Your task to perform on an android device: Open the web browser Image 0: 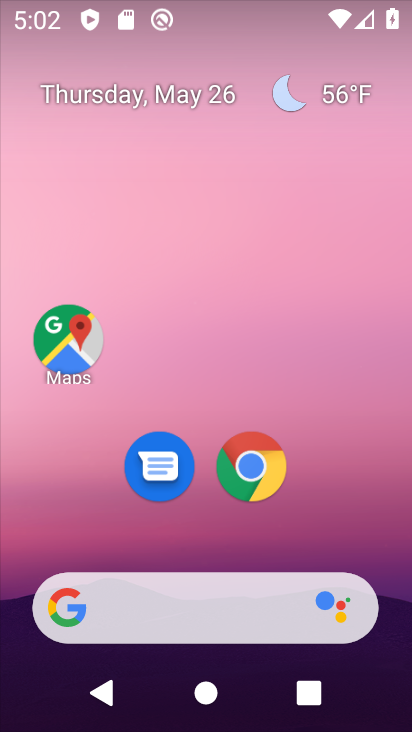
Step 0: click (244, 461)
Your task to perform on an android device: Open the web browser Image 1: 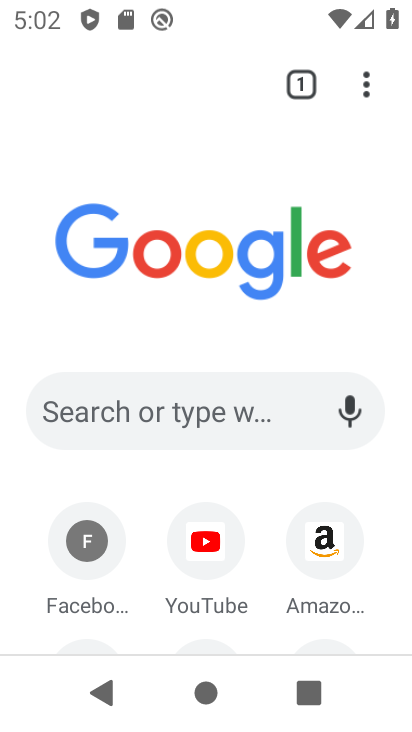
Step 1: click (188, 428)
Your task to perform on an android device: Open the web browser Image 2: 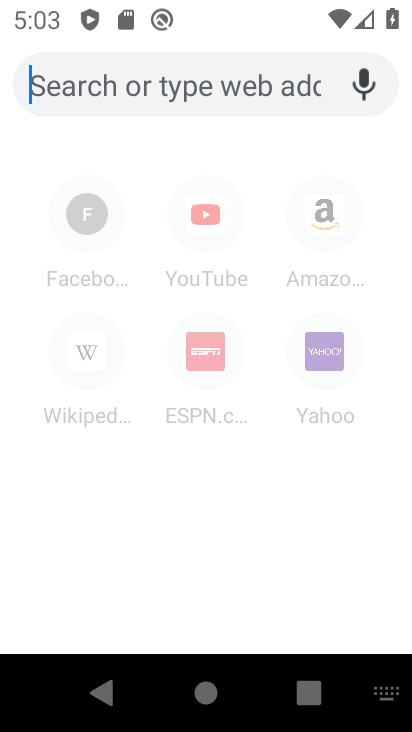
Step 2: type " web browser"
Your task to perform on an android device: Open the web browser Image 3: 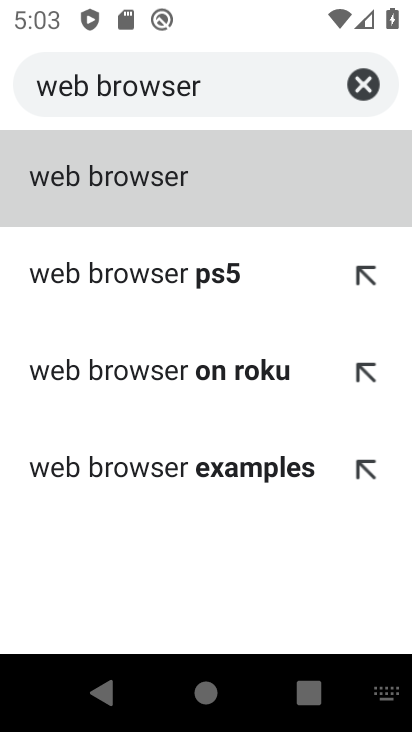
Step 3: click (99, 177)
Your task to perform on an android device: Open the web browser Image 4: 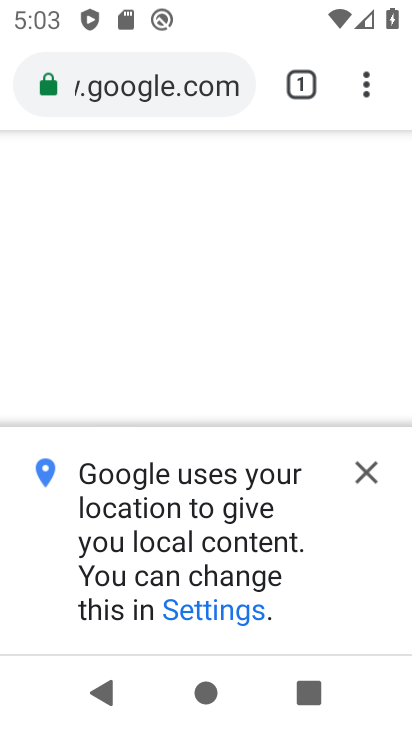
Step 4: click (370, 478)
Your task to perform on an android device: Open the web browser Image 5: 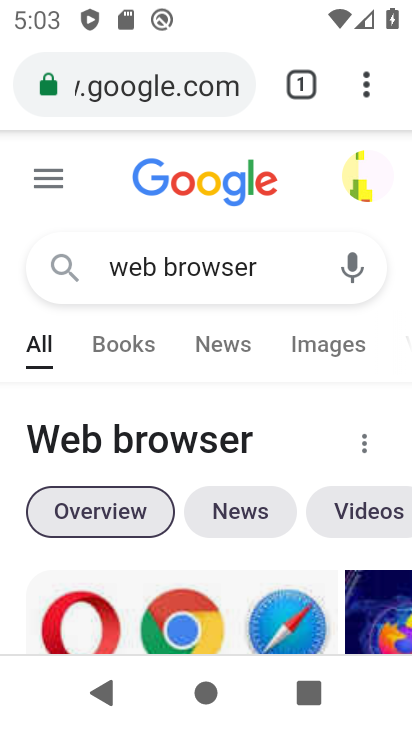
Step 5: task complete